Your task to perform on an android device: Go to network settings Image 0: 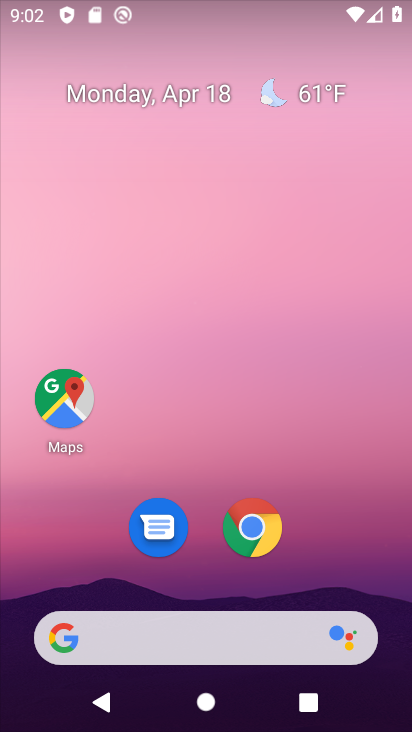
Step 0: drag from (273, 9) to (226, 570)
Your task to perform on an android device: Go to network settings Image 1: 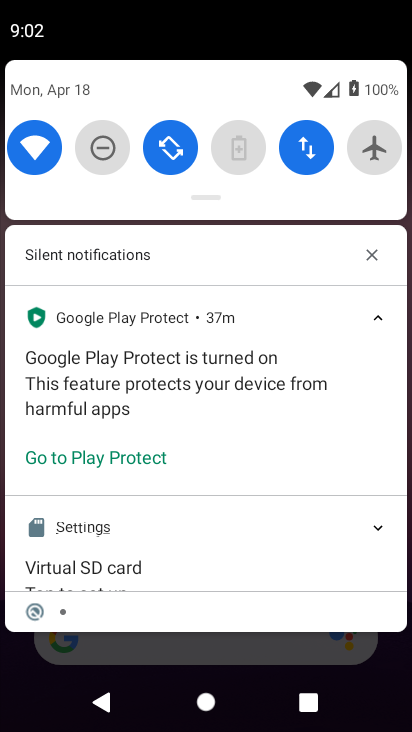
Step 1: drag from (181, 80) to (129, 696)
Your task to perform on an android device: Go to network settings Image 2: 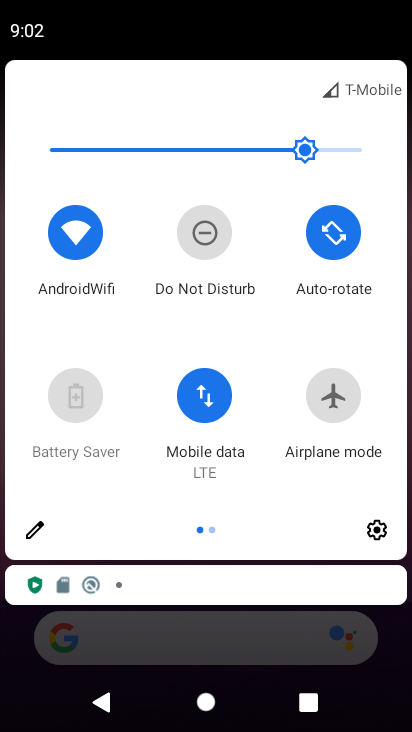
Step 2: click (379, 529)
Your task to perform on an android device: Go to network settings Image 3: 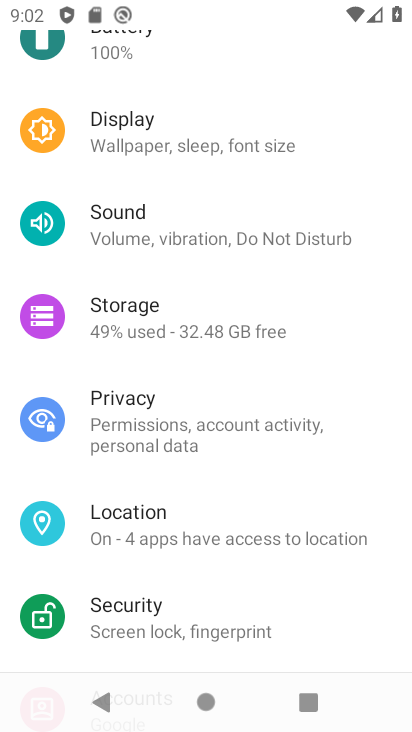
Step 3: drag from (277, 176) to (257, 657)
Your task to perform on an android device: Go to network settings Image 4: 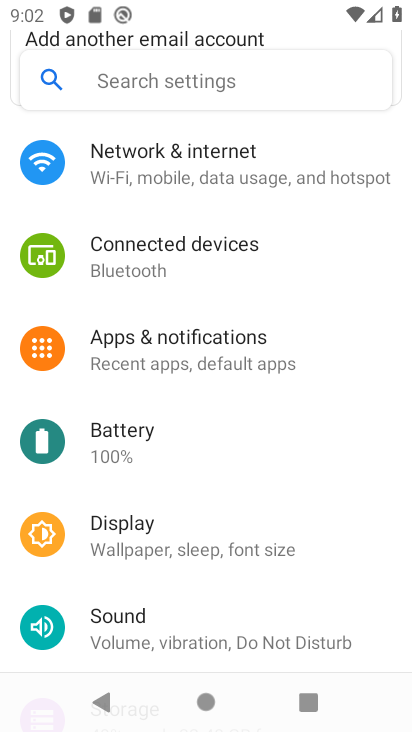
Step 4: click (209, 190)
Your task to perform on an android device: Go to network settings Image 5: 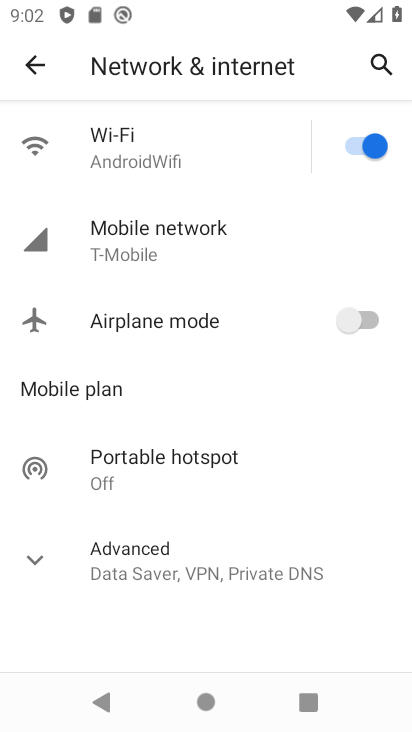
Step 5: click (241, 261)
Your task to perform on an android device: Go to network settings Image 6: 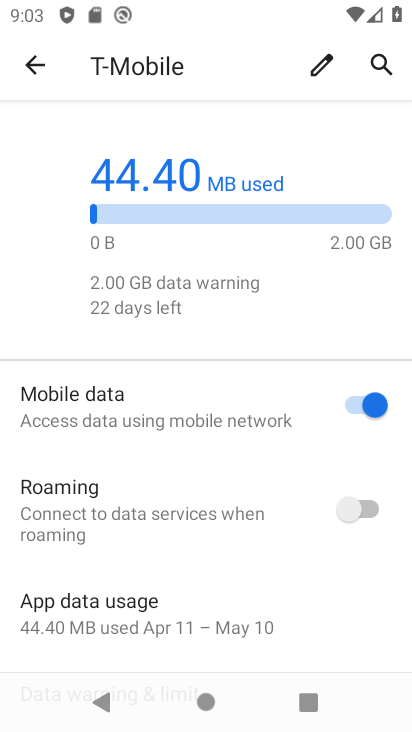
Step 6: task complete